Your task to perform on an android device: change the clock style Image 0: 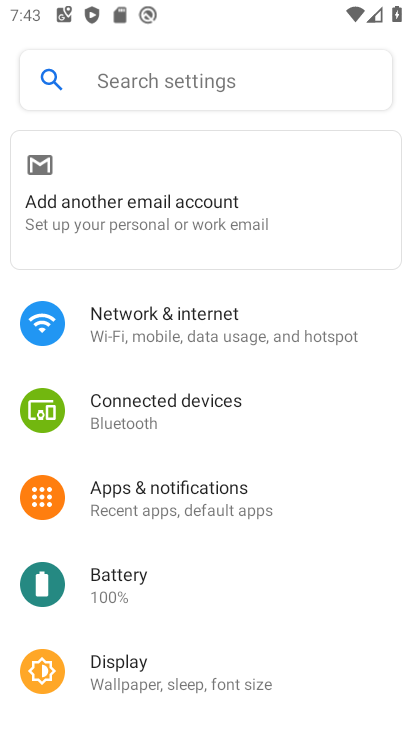
Step 0: press home button
Your task to perform on an android device: change the clock style Image 1: 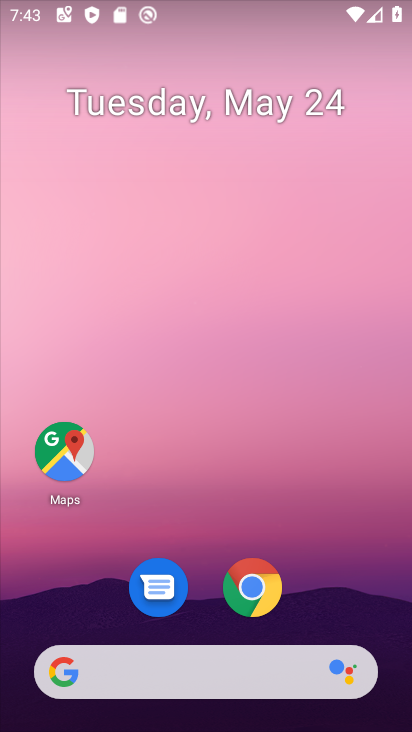
Step 1: drag from (193, 622) to (292, 61)
Your task to perform on an android device: change the clock style Image 2: 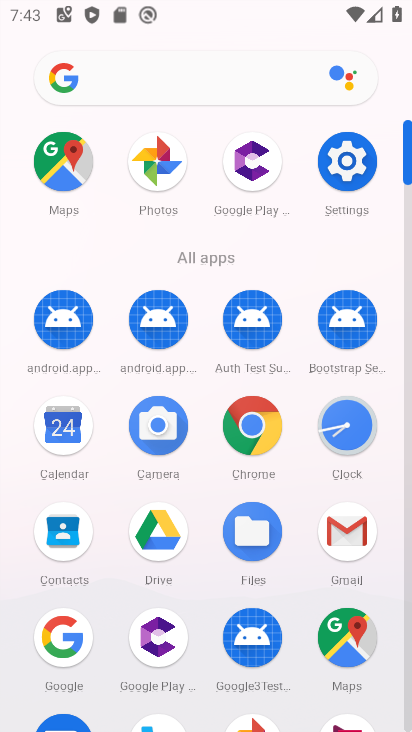
Step 2: click (366, 433)
Your task to perform on an android device: change the clock style Image 3: 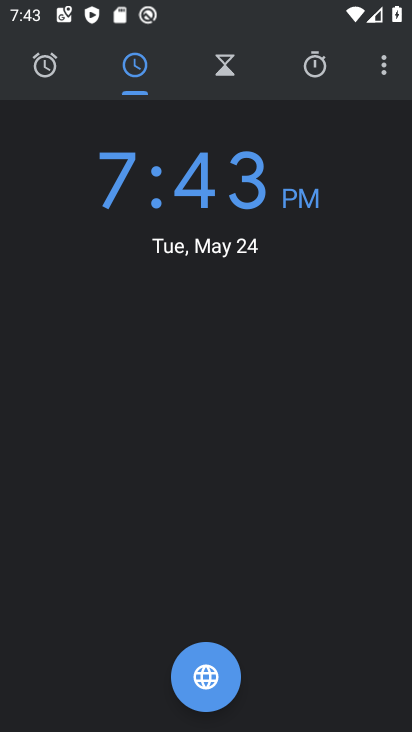
Step 3: click (376, 67)
Your task to perform on an android device: change the clock style Image 4: 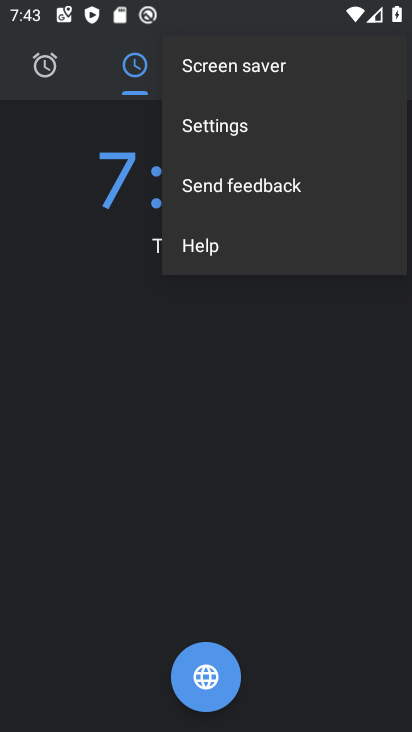
Step 4: click (297, 114)
Your task to perform on an android device: change the clock style Image 5: 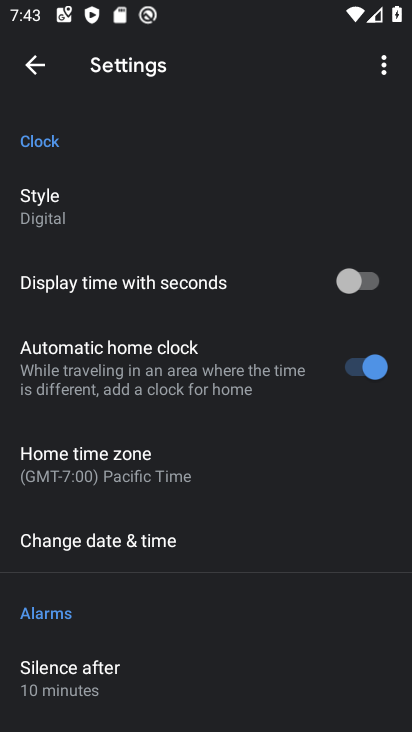
Step 5: click (56, 218)
Your task to perform on an android device: change the clock style Image 6: 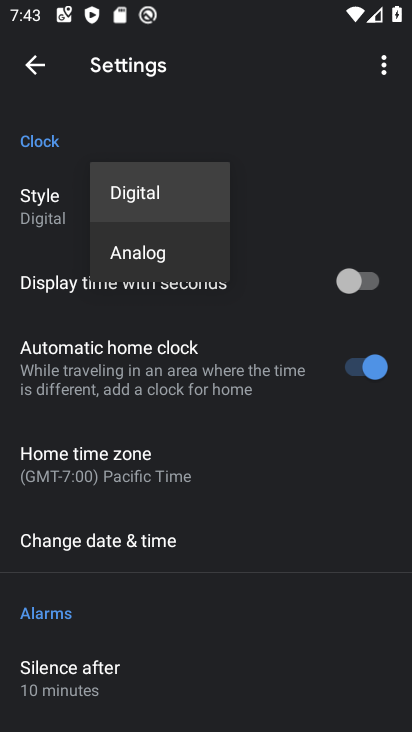
Step 6: click (166, 249)
Your task to perform on an android device: change the clock style Image 7: 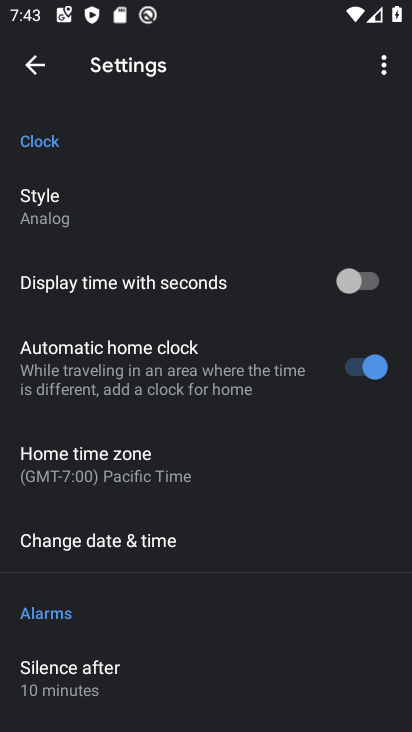
Step 7: task complete